Your task to perform on an android device: check android version Image 0: 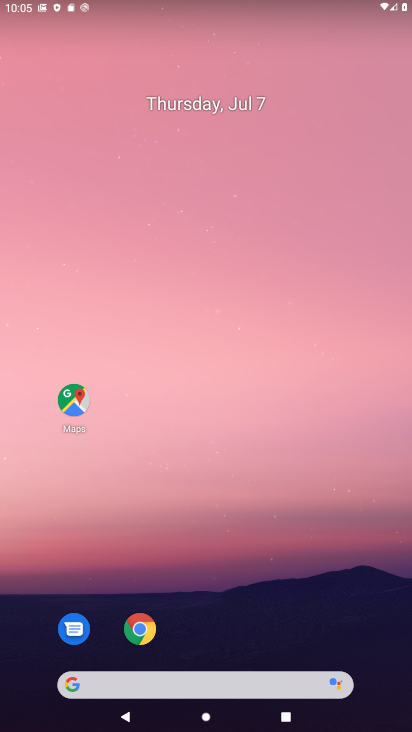
Step 0: drag from (182, 631) to (267, 82)
Your task to perform on an android device: check android version Image 1: 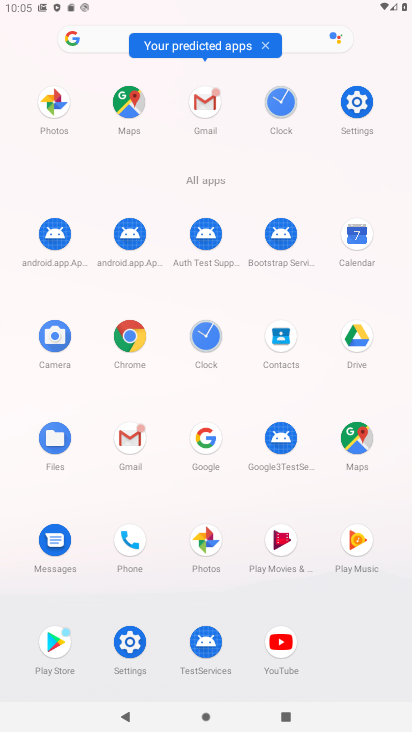
Step 1: click (121, 641)
Your task to perform on an android device: check android version Image 2: 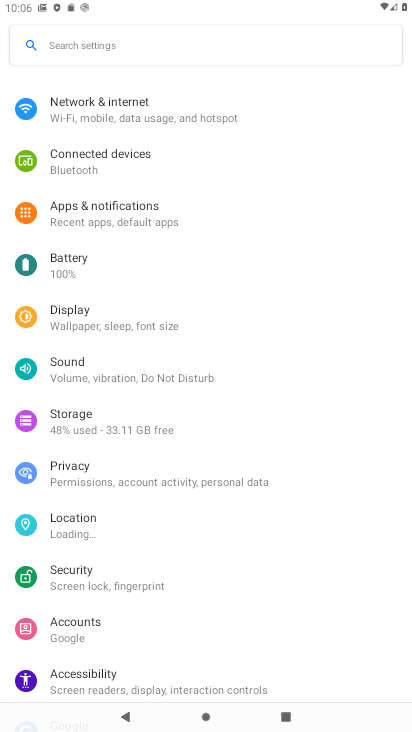
Step 2: drag from (156, 639) to (177, 237)
Your task to perform on an android device: check android version Image 3: 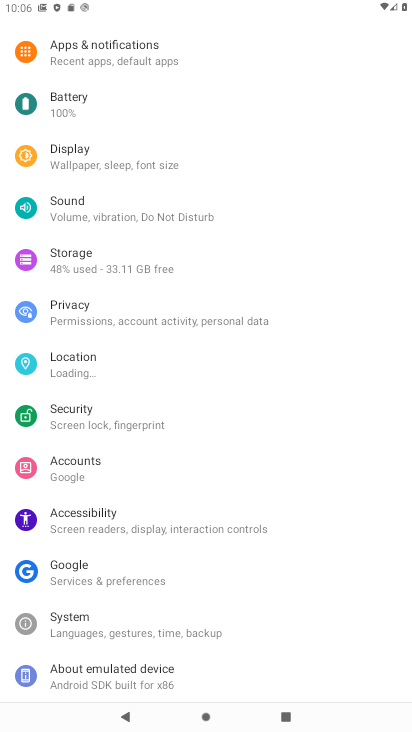
Step 3: drag from (137, 697) to (240, 155)
Your task to perform on an android device: check android version Image 4: 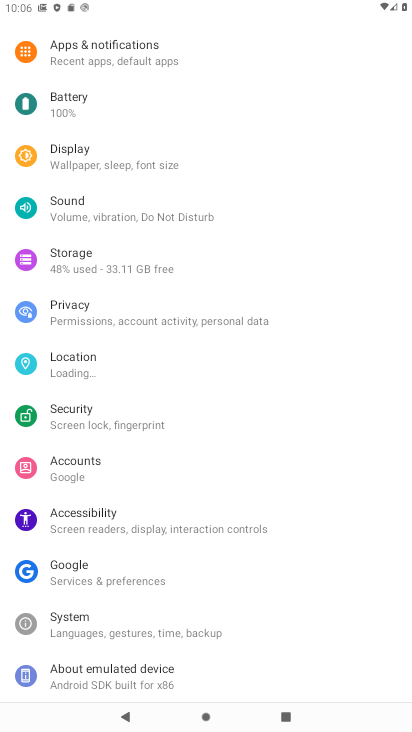
Step 4: click (119, 654)
Your task to perform on an android device: check android version Image 5: 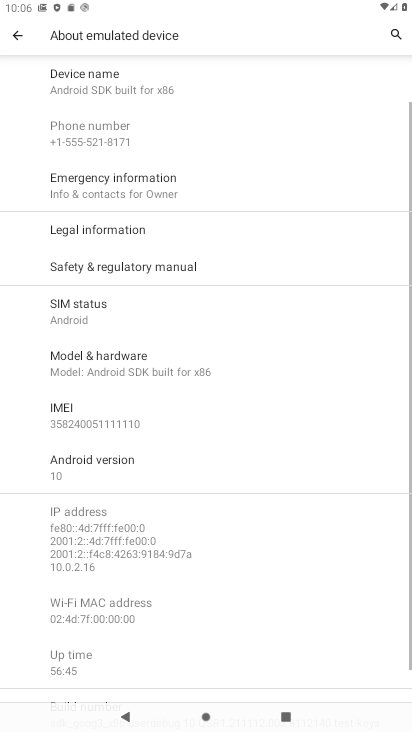
Step 5: drag from (163, 625) to (268, 161)
Your task to perform on an android device: check android version Image 6: 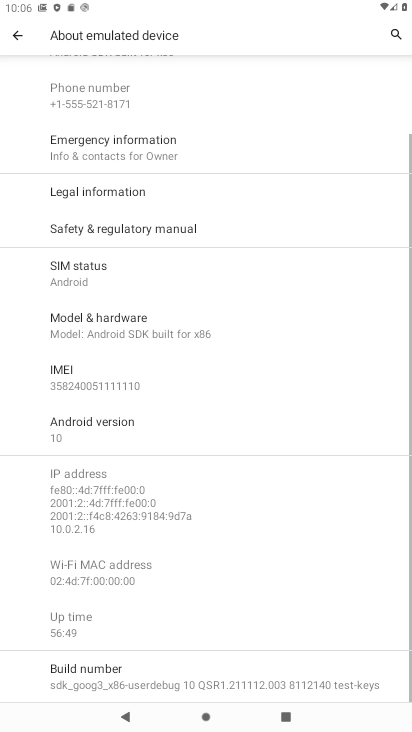
Step 6: click (144, 424)
Your task to perform on an android device: check android version Image 7: 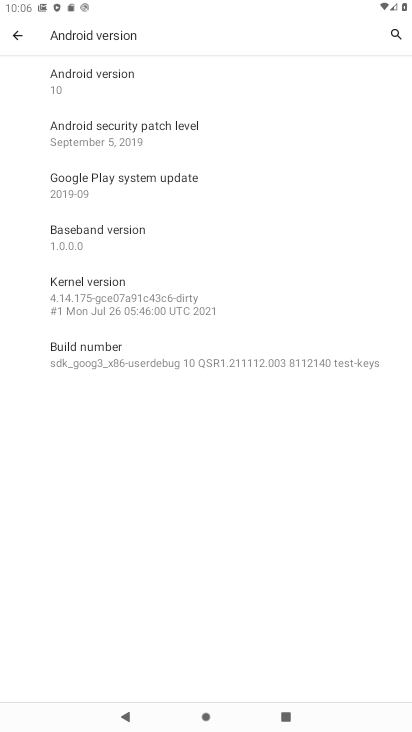
Step 7: task complete